Your task to perform on an android device: Open maps Image 0: 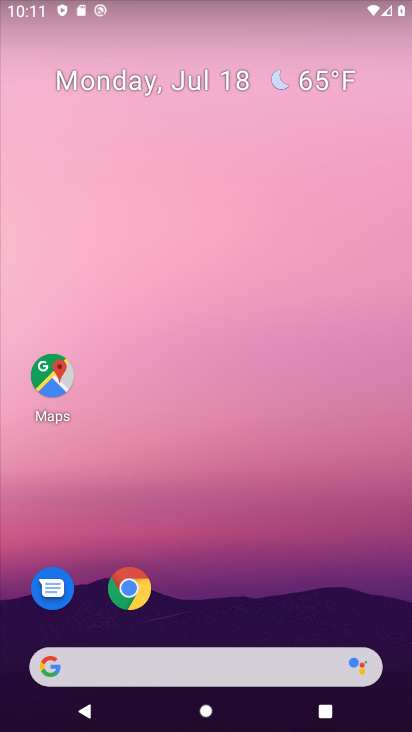
Step 0: press home button
Your task to perform on an android device: Open maps Image 1: 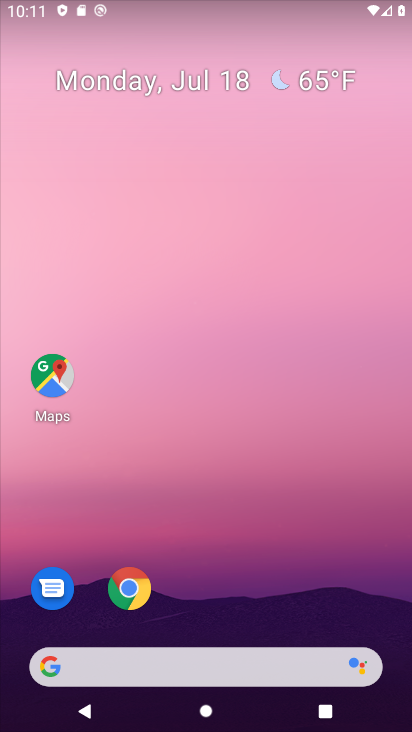
Step 1: click (48, 359)
Your task to perform on an android device: Open maps Image 2: 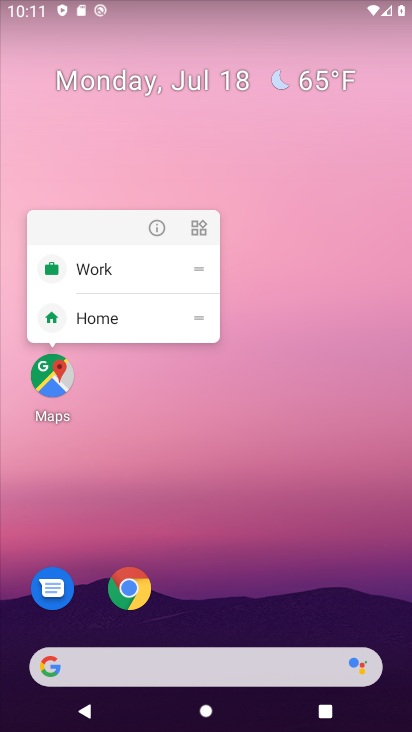
Step 2: click (60, 384)
Your task to perform on an android device: Open maps Image 3: 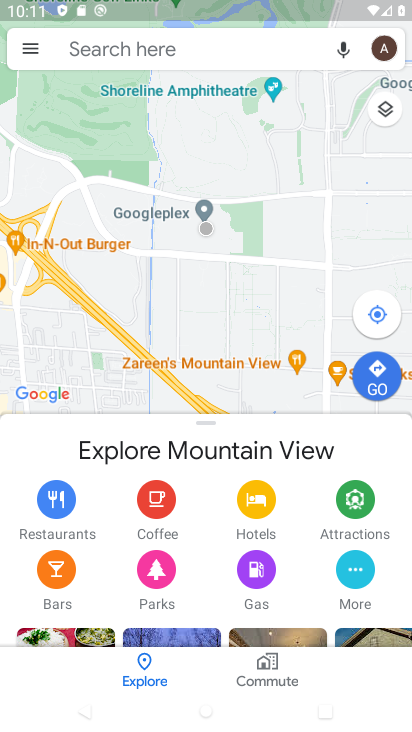
Step 3: task complete